Your task to perform on an android device: find photos in the google photos app Image 0: 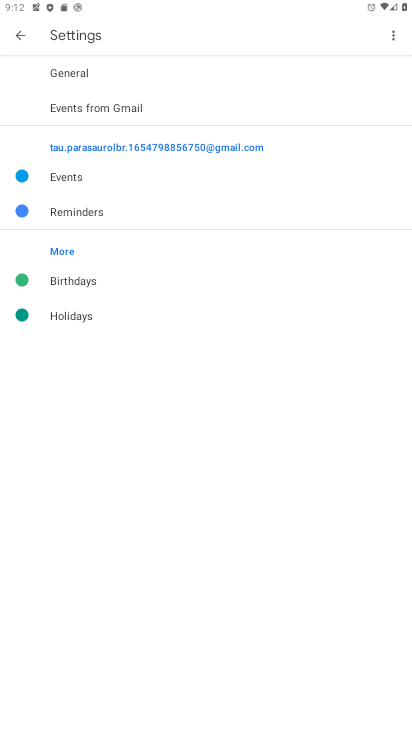
Step 0: press home button
Your task to perform on an android device: find photos in the google photos app Image 1: 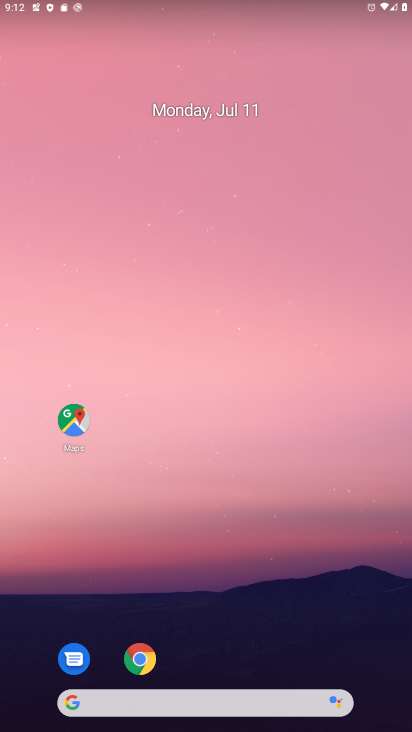
Step 1: drag from (265, 583) to (170, 144)
Your task to perform on an android device: find photos in the google photos app Image 2: 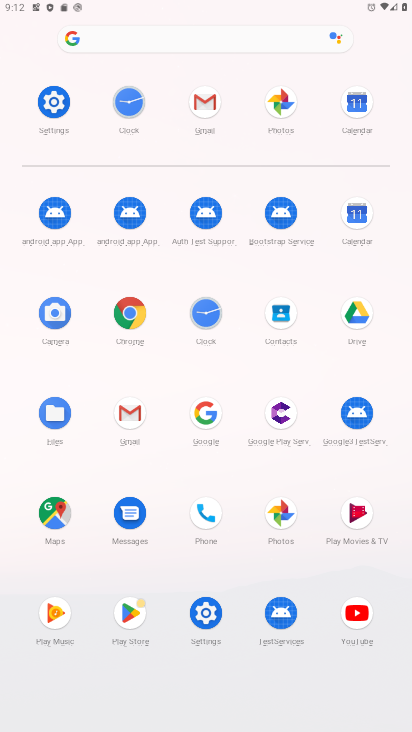
Step 2: click (281, 100)
Your task to perform on an android device: find photos in the google photos app Image 3: 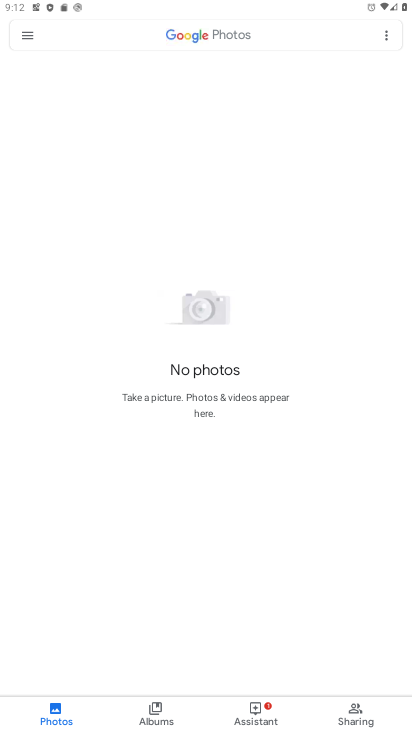
Step 3: click (24, 37)
Your task to perform on an android device: find photos in the google photos app Image 4: 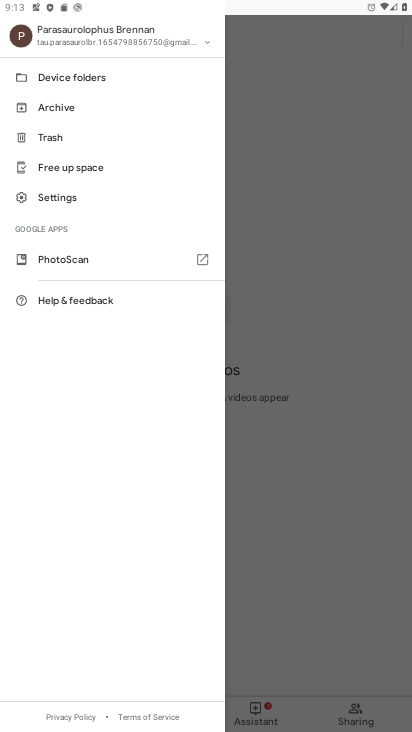
Step 4: click (310, 292)
Your task to perform on an android device: find photos in the google photos app Image 5: 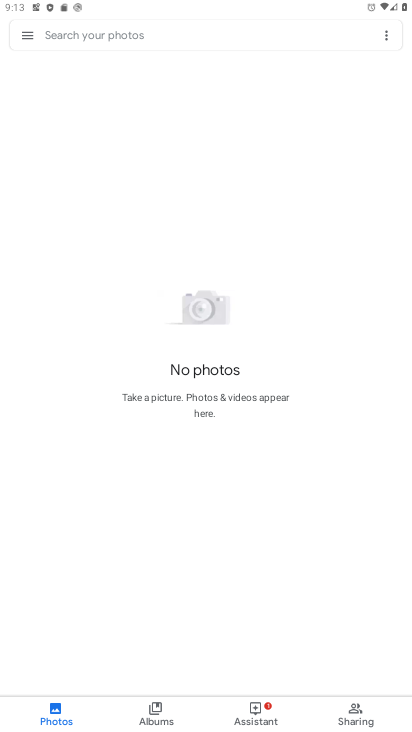
Step 5: click (119, 30)
Your task to perform on an android device: find photos in the google photos app Image 6: 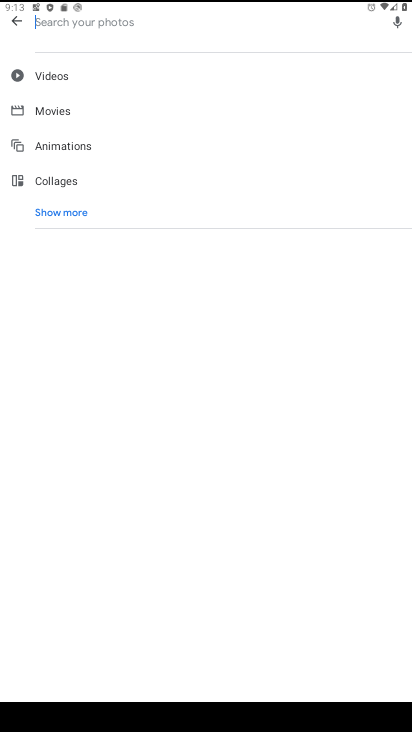
Step 6: task complete